Your task to perform on an android device: How much does a 2 bedroom apartment rent for in Washington DC? Image 0: 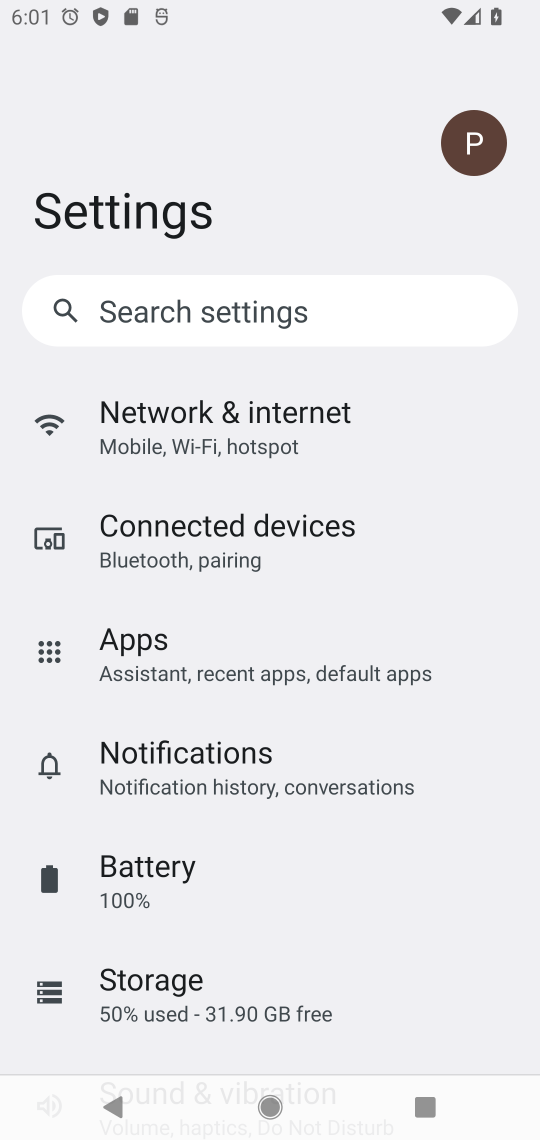
Step 0: press home button
Your task to perform on an android device: How much does a 2 bedroom apartment rent for in Washington DC? Image 1: 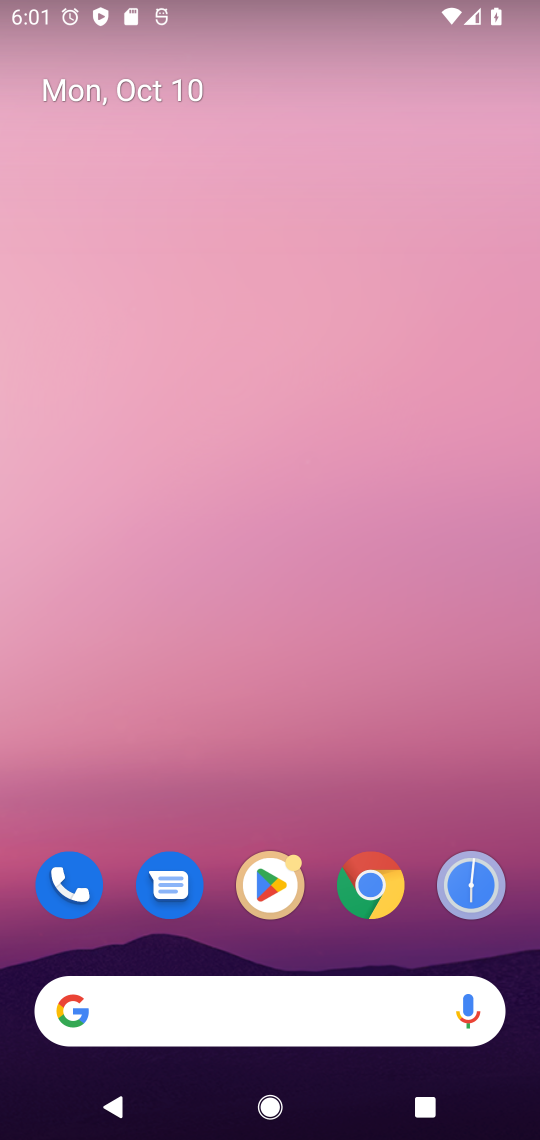
Step 1: press home button
Your task to perform on an android device: How much does a 2 bedroom apartment rent for in Washington DC? Image 2: 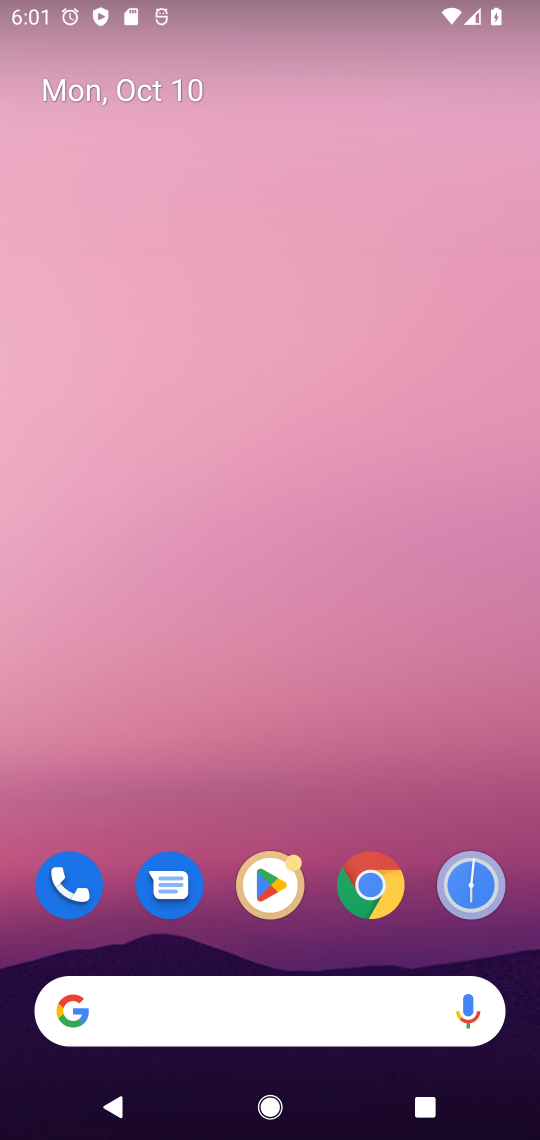
Step 2: click (358, 887)
Your task to perform on an android device: How much does a 2 bedroom apartment rent for in Washington DC? Image 3: 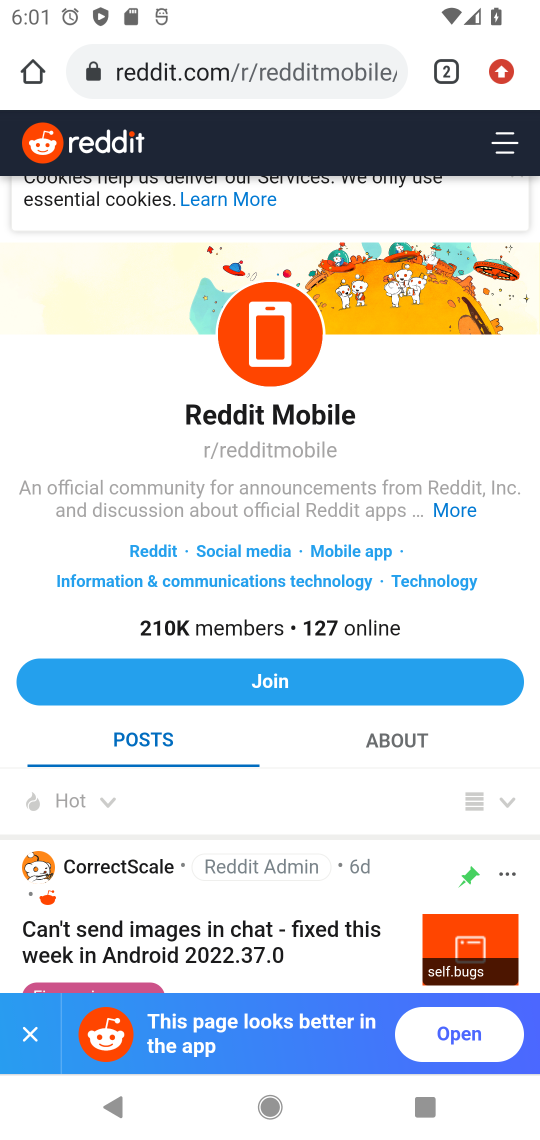
Step 3: click (206, 70)
Your task to perform on an android device: How much does a 2 bedroom apartment rent for in Washington DC? Image 4: 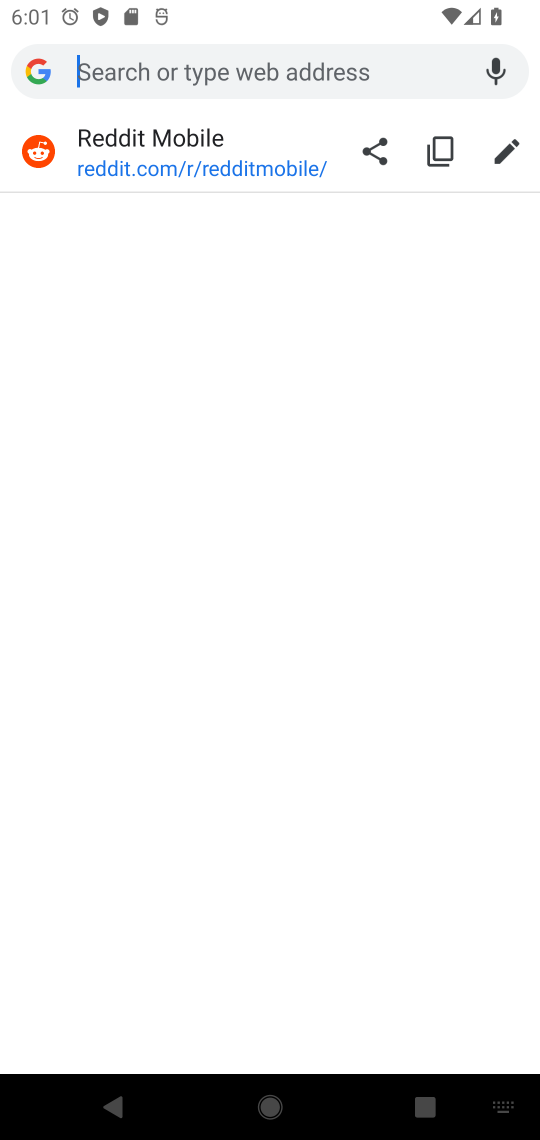
Step 4: type "2 bedroom apartment rent for in Washington DC"
Your task to perform on an android device: How much does a 2 bedroom apartment rent for in Washington DC? Image 5: 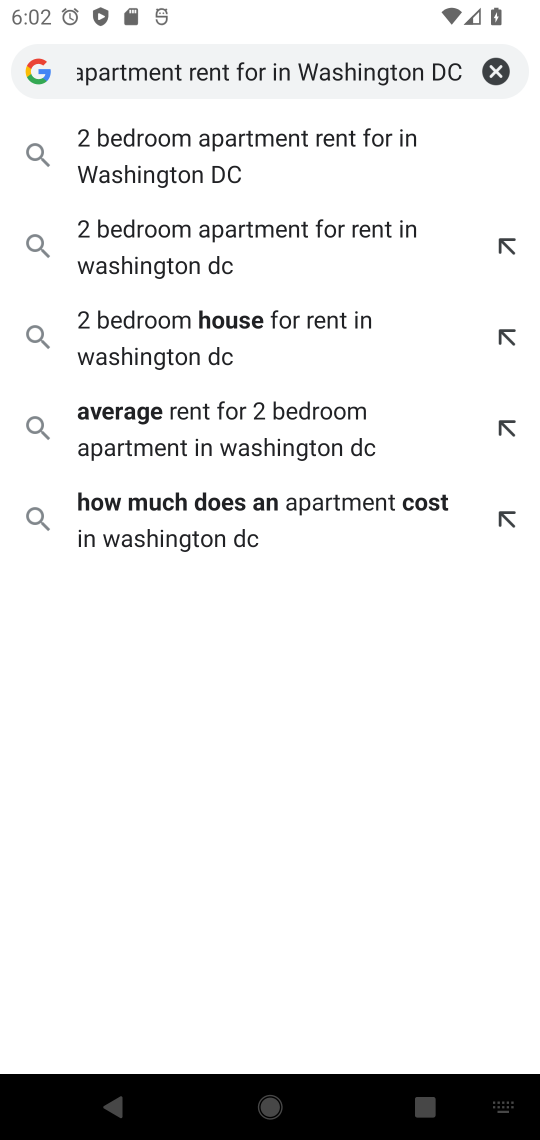
Step 5: click (291, 146)
Your task to perform on an android device: How much does a 2 bedroom apartment rent for in Washington DC? Image 6: 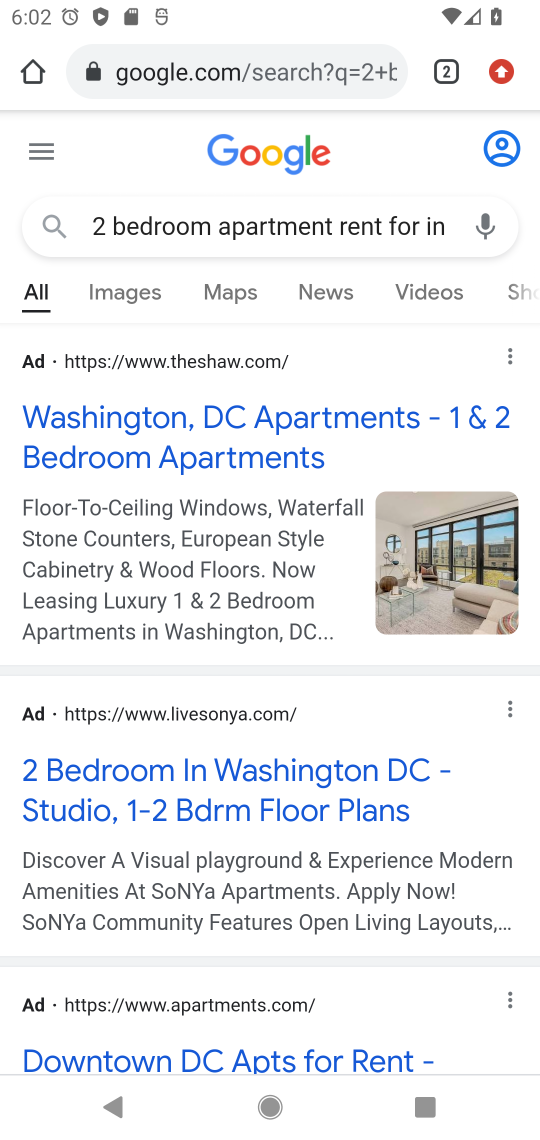
Step 6: drag from (406, 1013) to (364, 635)
Your task to perform on an android device: How much does a 2 bedroom apartment rent for in Washington DC? Image 7: 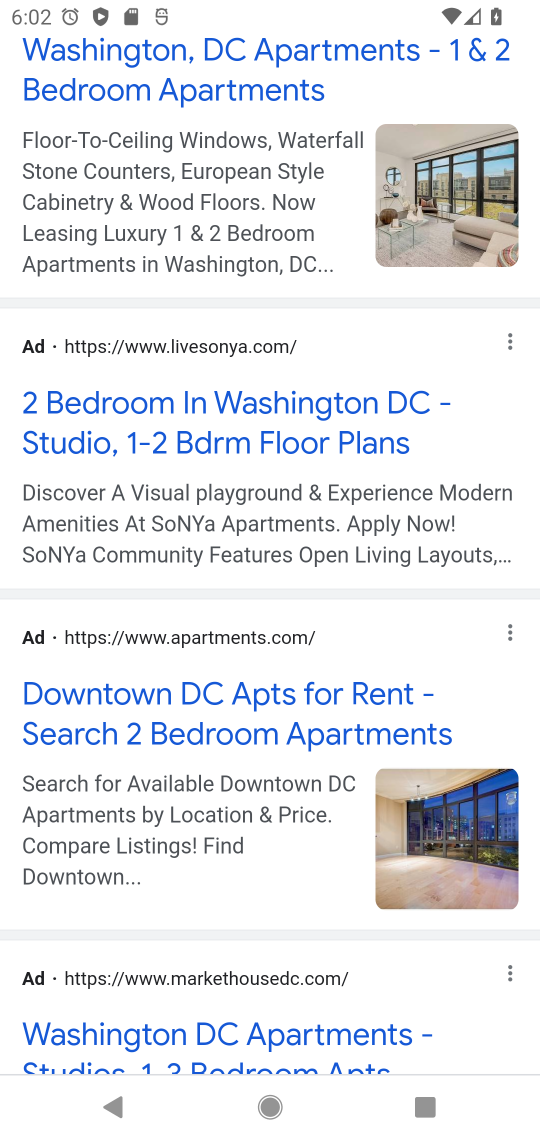
Step 7: click (226, 703)
Your task to perform on an android device: How much does a 2 bedroom apartment rent for in Washington DC? Image 8: 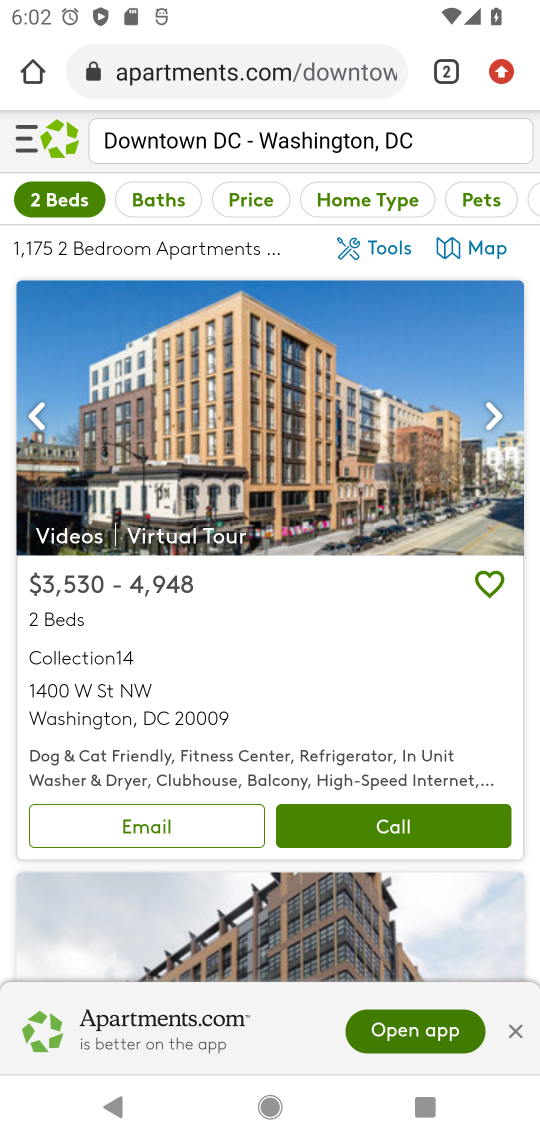
Step 8: task complete